Your task to perform on an android device: Open calendar and show me the fourth week of next month Image 0: 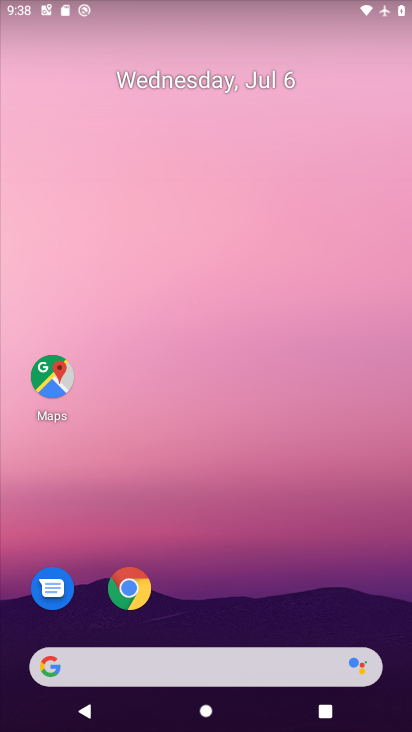
Step 0: click (134, 590)
Your task to perform on an android device: Open calendar and show me the fourth week of next month Image 1: 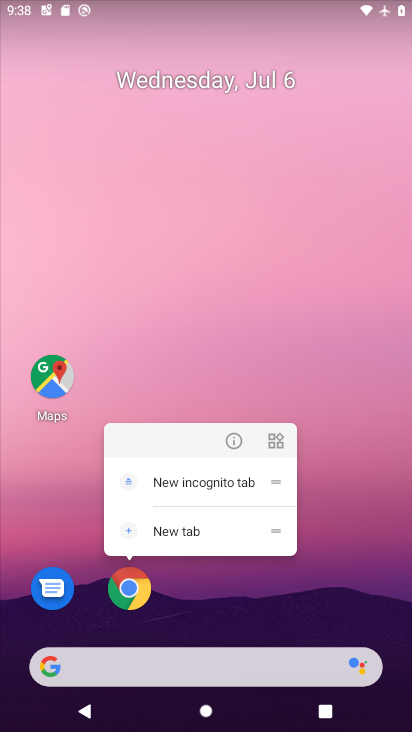
Step 1: drag from (186, 669) to (342, 64)
Your task to perform on an android device: Open calendar and show me the fourth week of next month Image 2: 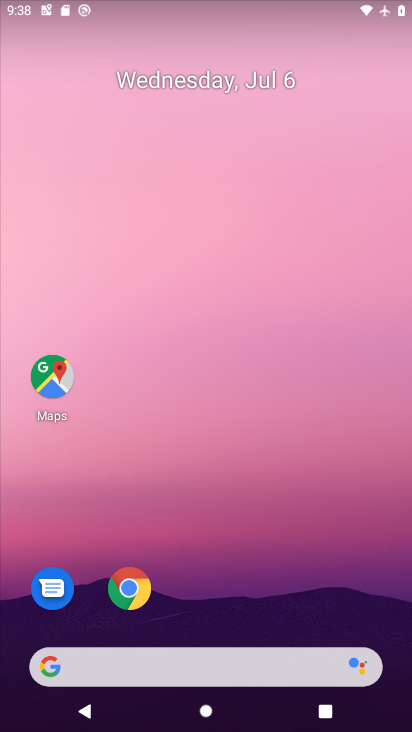
Step 2: drag from (186, 650) to (365, 16)
Your task to perform on an android device: Open calendar and show me the fourth week of next month Image 3: 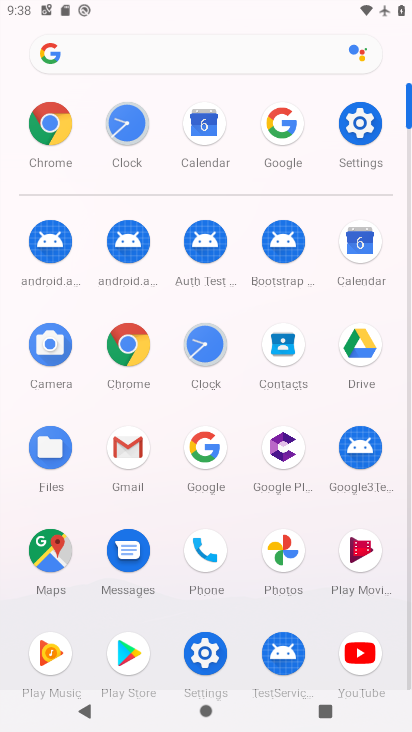
Step 3: click (359, 232)
Your task to perform on an android device: Open calendar and show me the fourth week of next month Image 4: 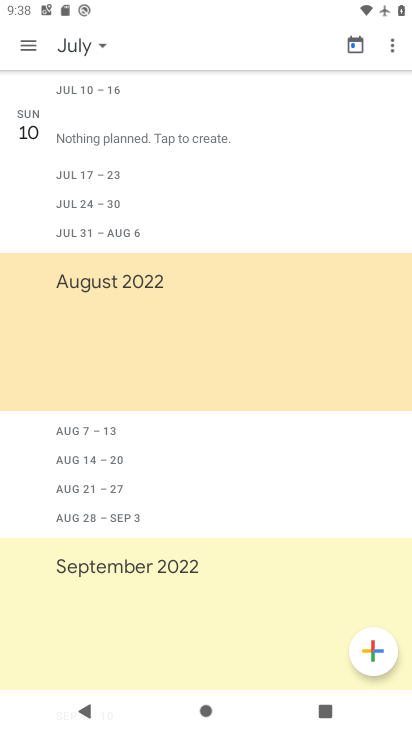
Step 4: click (80, 37)
Your task to perform on an android device: Open calendar and show me the fourth week of next month Image 5: 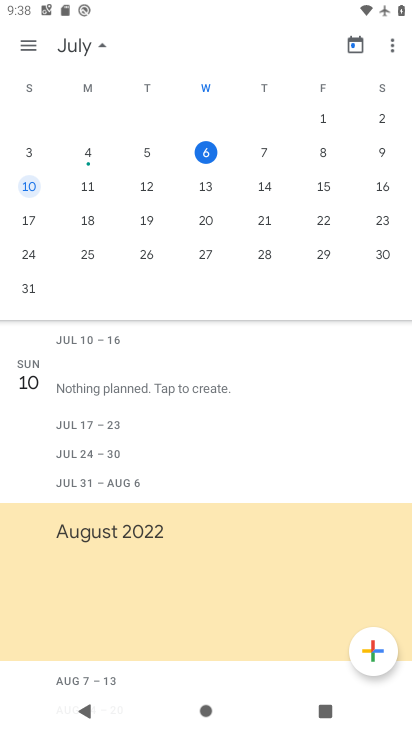
Step 5: drag from (299, 222) to (26, 171)
Your task to perform on an android device: Open calendar and show me the fourth week of next month Image 6: 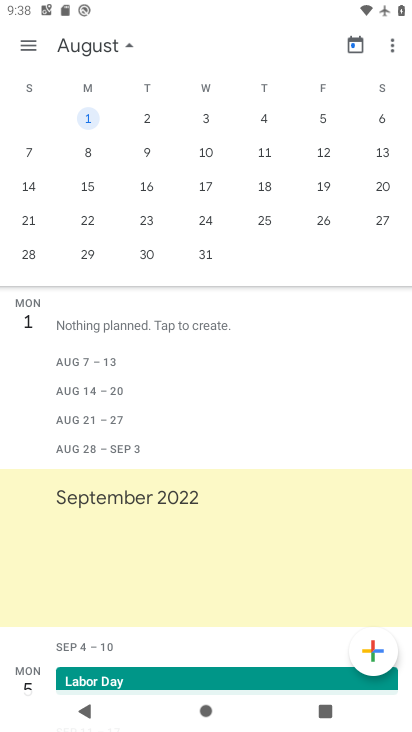
Step 6: click (32, 216)
Your task to perform on an android device: Open calendar and show me the fourth week of next month Image 7: 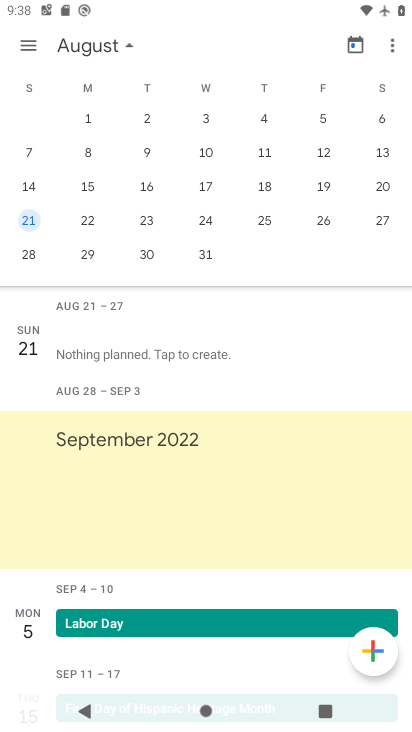
Step 7: click (29, 42)
Your task to perform on an android device: Open calendar and show me the fourth week of next month Image 8: 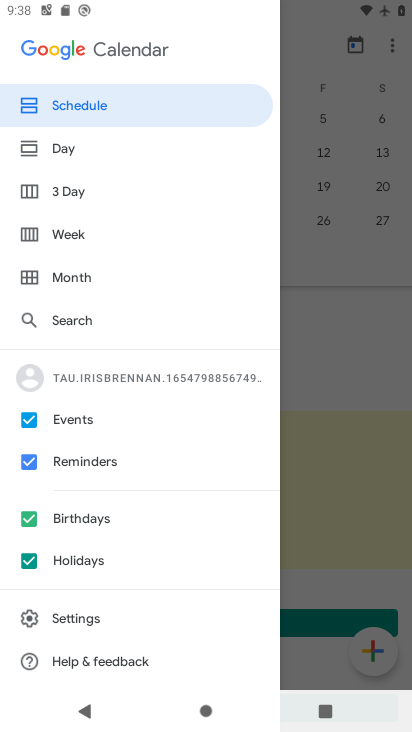
Step 8: click (70, 229)
Your task to perform on an android device: Open calendar and show me the fourth week of next month Image 9: 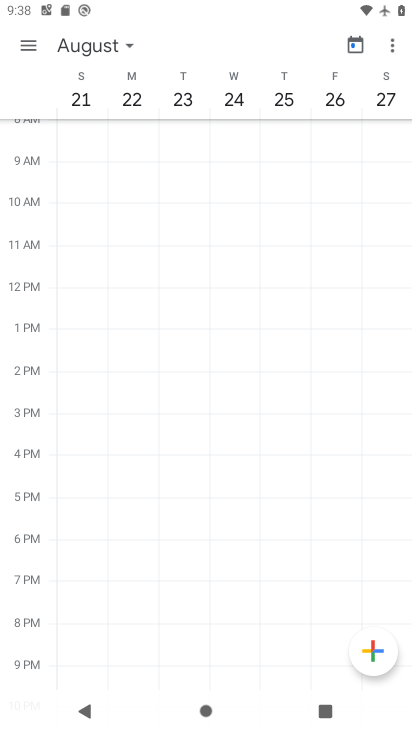
Step 9: task complete